Your task to perform on an android device: turn off translation in the chrome app Image 0: 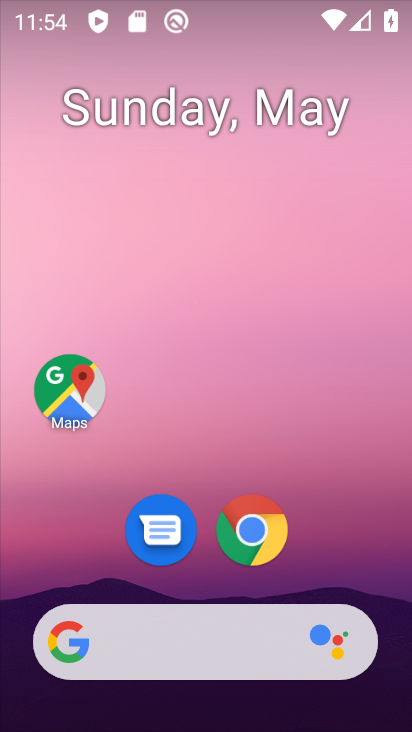
Step 0: click (236, 528)
Your task to perform on an android device: turn off translation in the chrome app Image 1: 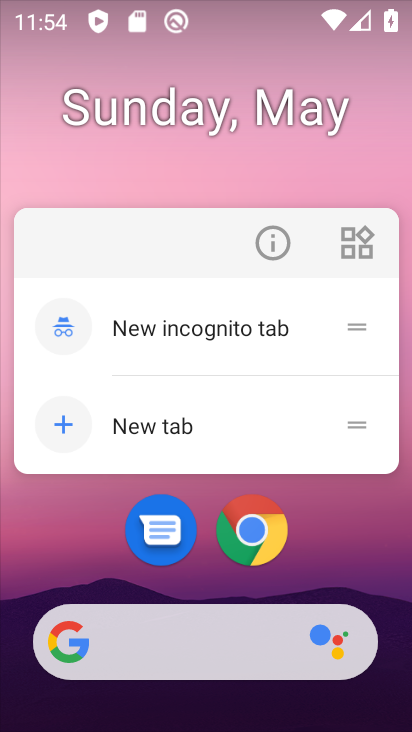
Step 1: click (247, 531)
Your task to perform on an android device: turn off translation in the chrome app Image 2: 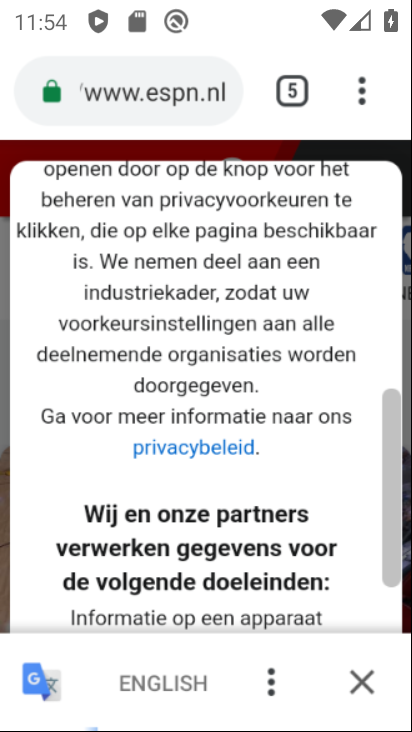
Step 2: drag from (356, 87) to (128, 562)
Your task to perform on an android device: turn off translation in the chrome app Image 3: 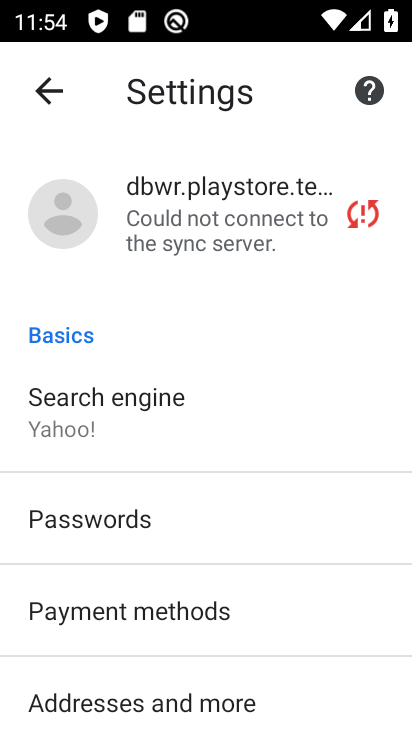
Step 3: drag from (203, 666) to (292, 41)
Your task to perform on an android device: turn off translation in the chrome app Image 4: 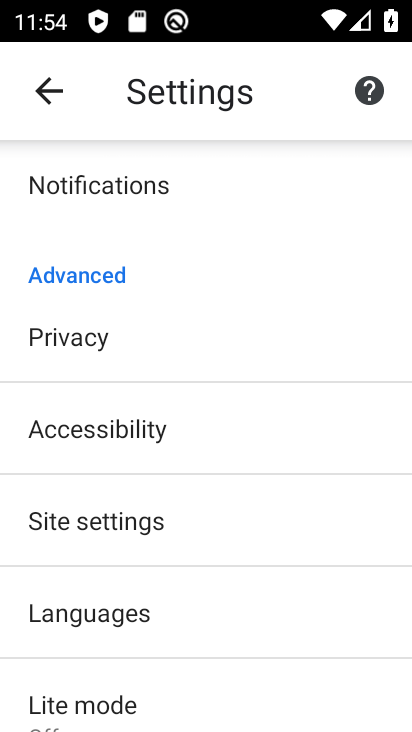
Step 4: click (137, 614)
Your task to perform on an android device: turn off translation in the chrome app Image 5: 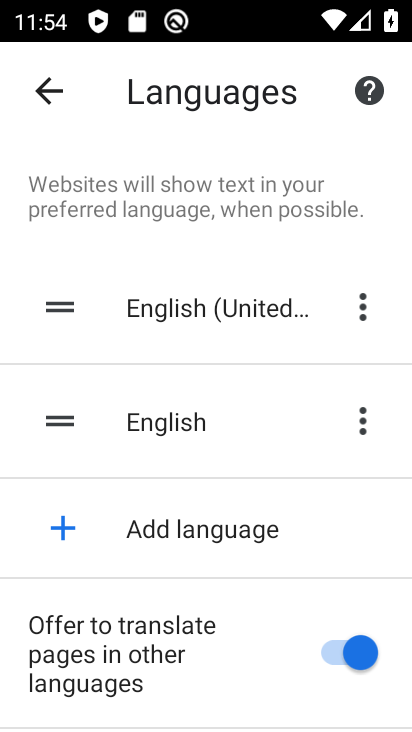
Step 5: click (348, 649)
Your task to perform on an android device: turn off translation in the chrome app Image 6: 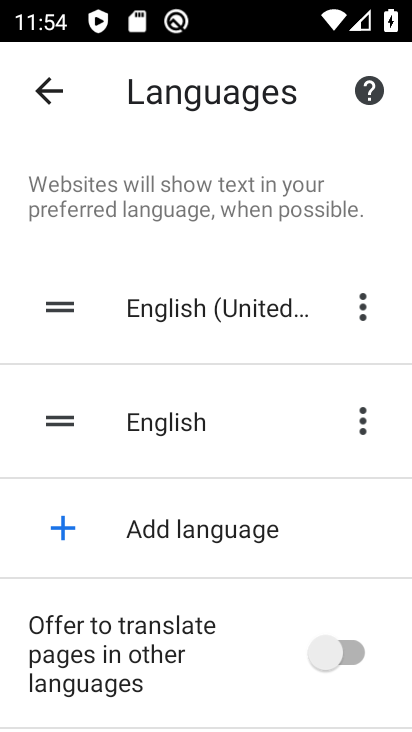
Step 6: task complete